Your task to perform on an android device: toggle wifi Image 0: 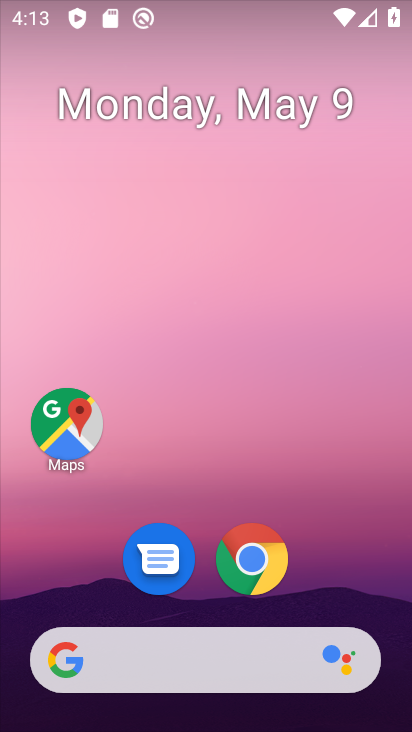
Step 0: drag from (328, 12) to (359, 503)
Your task to perform on an android device: toggle wifi Image 1: 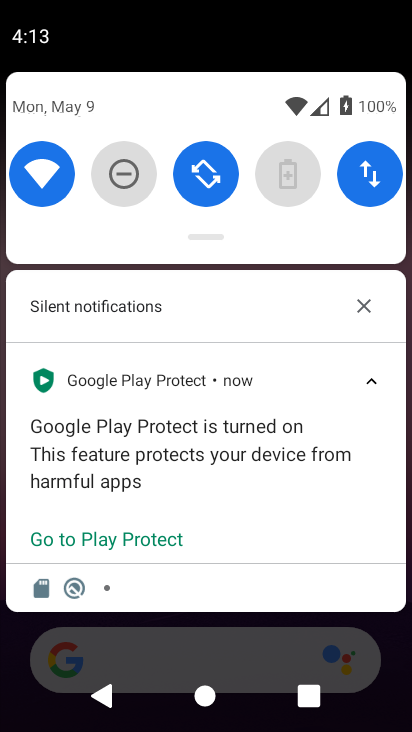
Step 1: click (47, 175)
Your task to perform on an android device: toggle wifi Image 2: 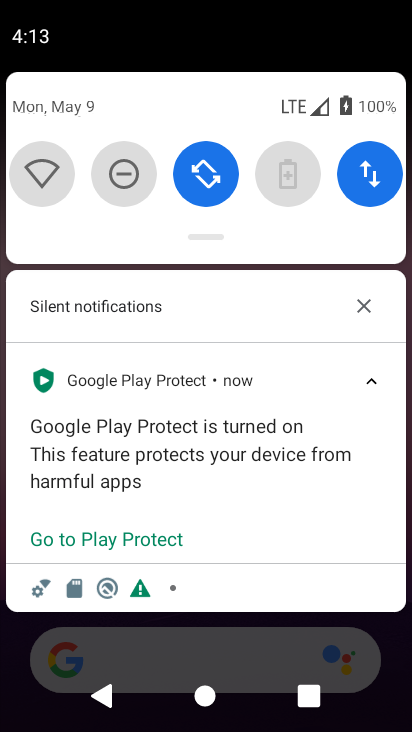
Step 2: task complete